Your task to perform on an android device: turn off location history Image 0: 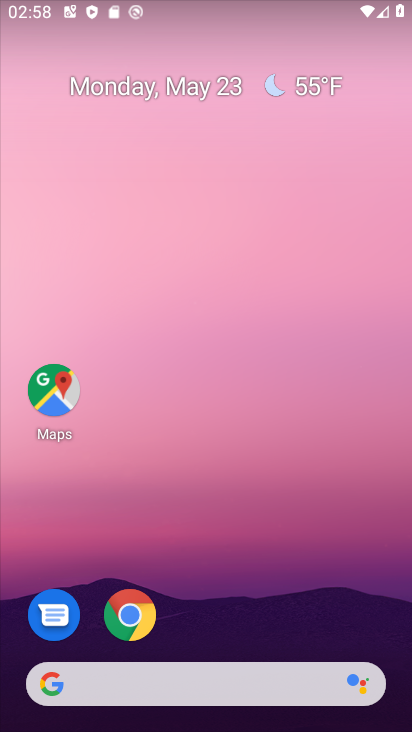
Step 0: drag from (349, 634) to (366, 271)
Your task to perform on an android device: turn off location history Image 1: 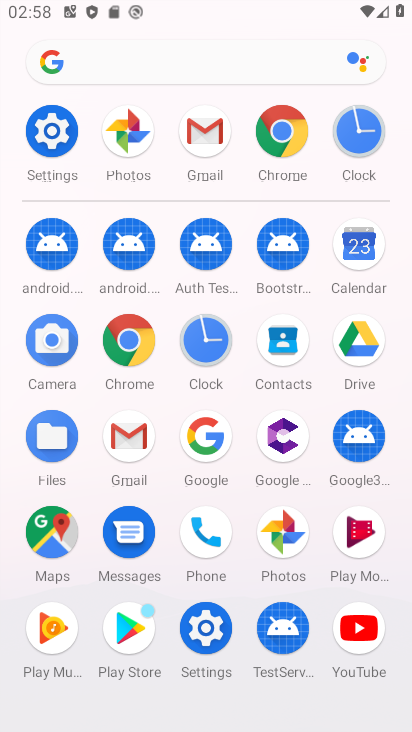
Step 1: click (191, 648)
Your task to perform on an android device: turn off location history Image 2: 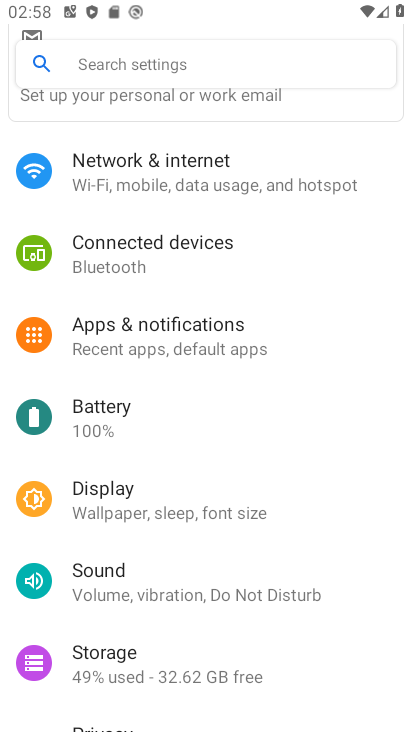
Step 2: drag from (323, 645) to (332, 488)
Your task to perform on an android device: turn off location history Image 3: 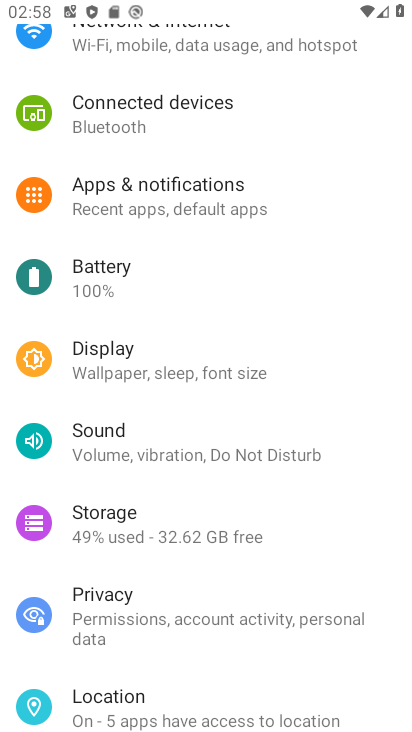
Step 3: drag from (322, 667) to (336, 531)
Your task to perform on an android device: turn off location history Image 4: 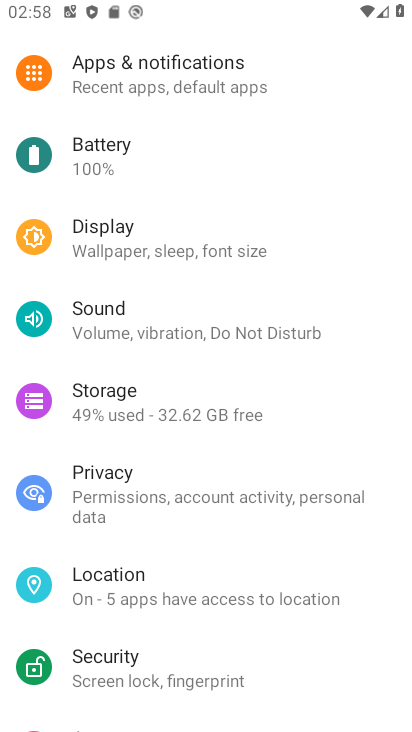
Step 4: drag from (355, 685) to (350, 521)
Your task to perform on an android device: turn off location history Image 5: 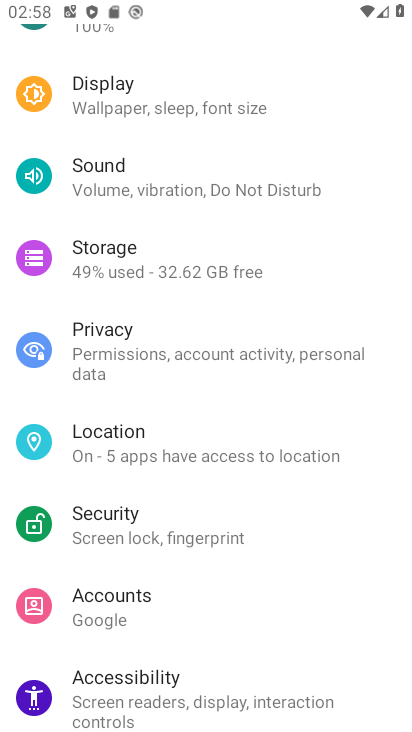
Step 5: drag from (358, 674) to (361, 496)
Your task to perform on an android device: turn off location history Image 6: 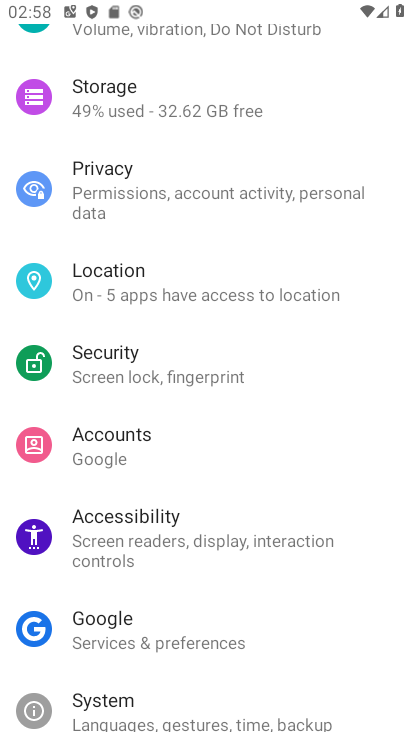
Step 6: drag from (375, 647) to (355, 497)
Your task to perform on an android device: turn off location history Image 7: 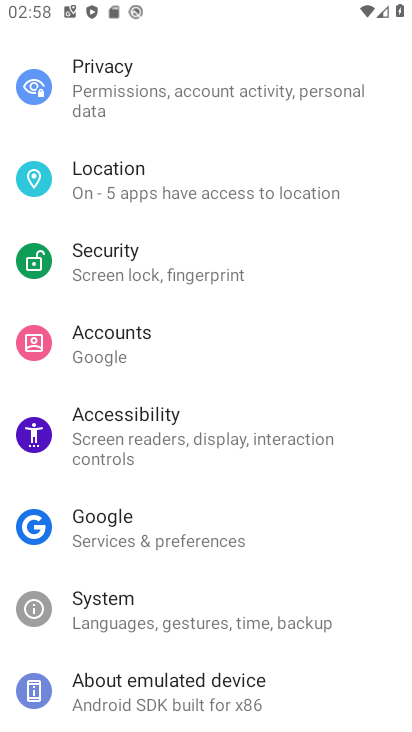
Step 7: drag from (334, 668) to (345, 527)
Your task to perform on an android device: turn off location history Image 8: 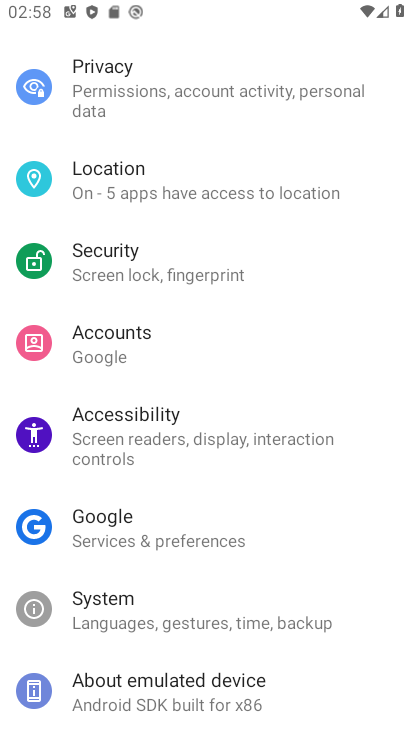
Step 8: drag from (355, 423) to (345, 529)
Your task to perform on an android device: turn off location history Image 9: 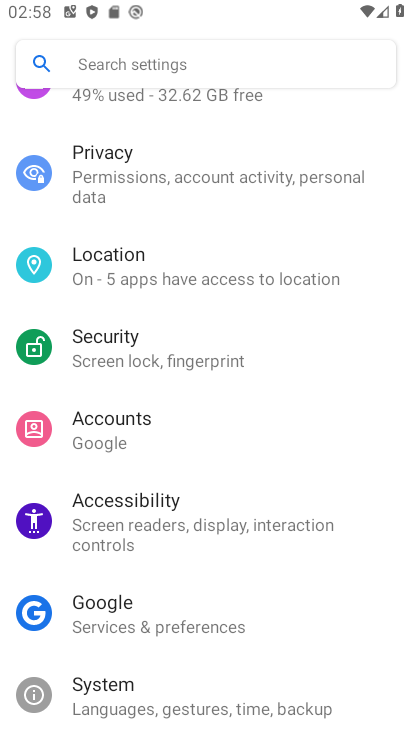
Step 9: drag from (350, 423) to (345, 527)
Your task to perform on an android device: turn off location history Image 10: 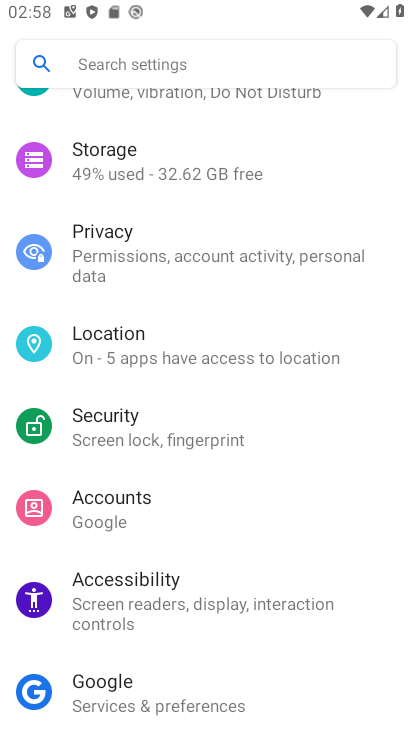
Step 10: drag from (331, 438) to (324, 504)
Your task to perform on an android device: turn off location history Image 11: 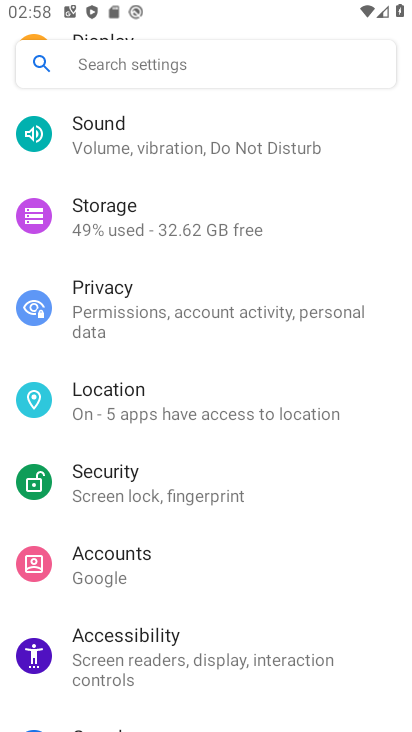
Step 11: drag from (338, 409) to (337, 498)
Your task to perform on an android device: turn off location history Image 12: 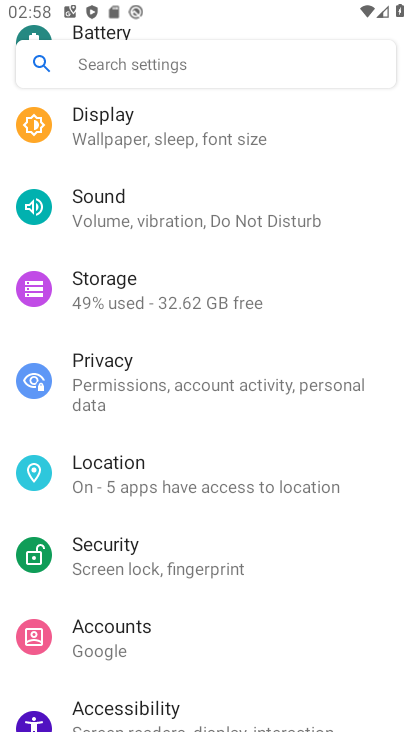
Step 12: drag from (359, 374) to (342, 510)
Your task to perform on an android device: turn off location history Image 13: 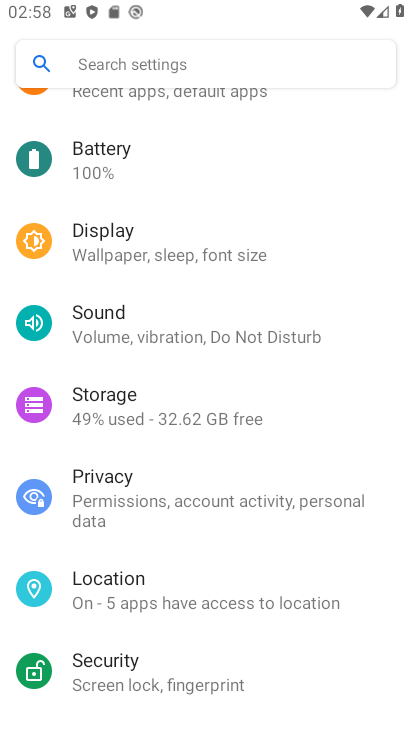
Step 13: click (294, 572)
Your task to perform on an android device: turn off location history Image 14: 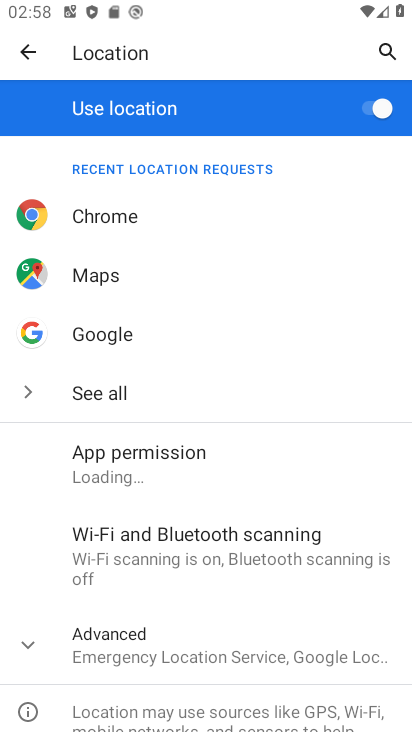
Step 14: drag from (289, 616) to (296, 498)
Your task to perform on an android device: turn off location history Image 15: 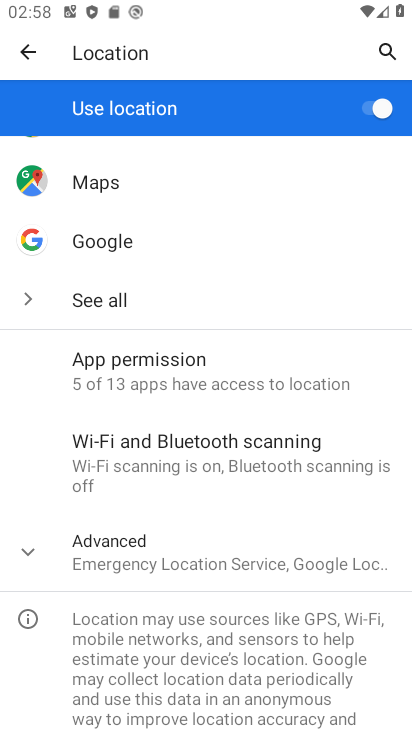
Step 15: click (294, 575)
Your task to perform on an android device: turn off location history Image 16: 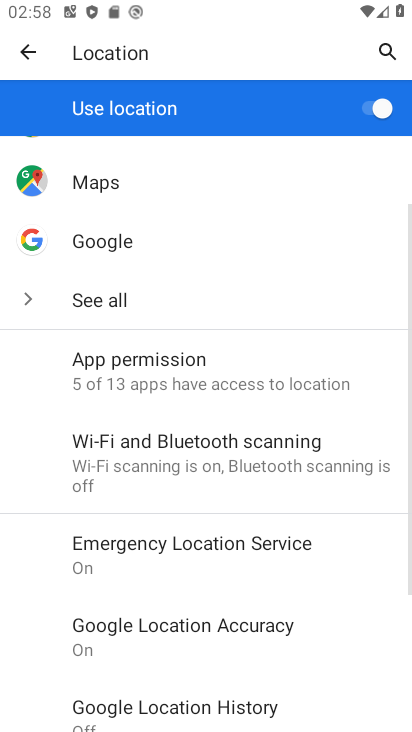
Step 16: drag from (290, 668) to (297, 555)
Your task to perform on an android device: turn off location history Image 17: 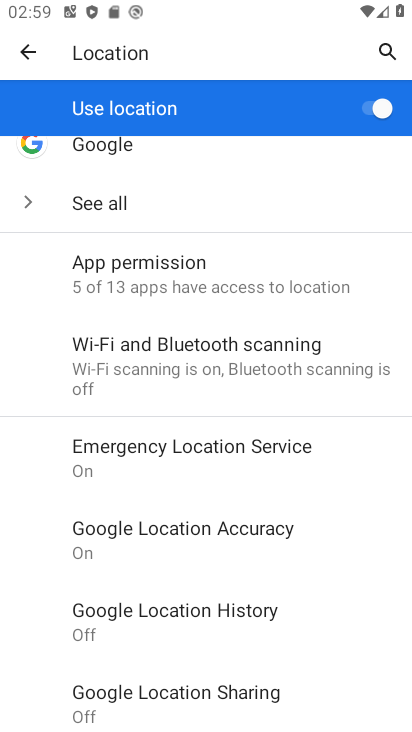
Step 17: click (275, 636)
Your task to perform on an android device: turn off location history Image 18: 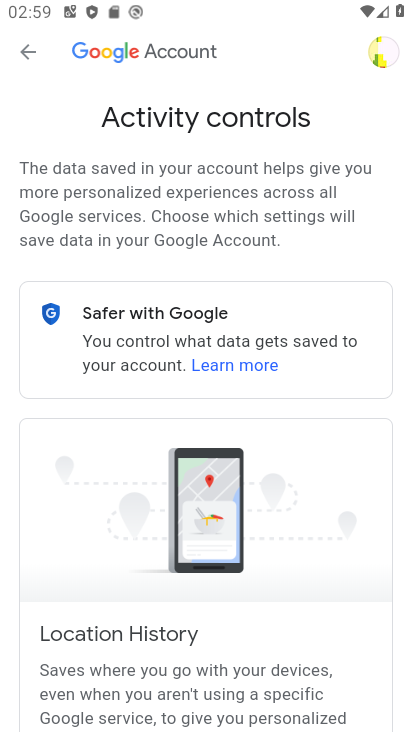
Step 18: drag from (275, 636) to (271, 522)
Your task to perform on an android device: turn off location history Image 19: 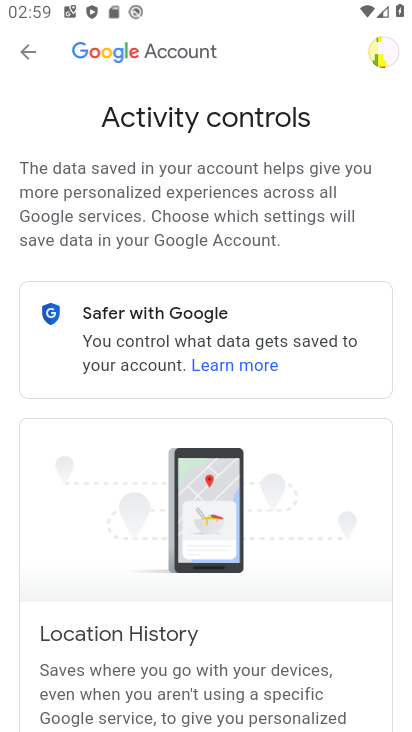
Step 19: drag from (260, 646) to (270, 506)
Your task to perform on an android device: turn off location history Image 20: 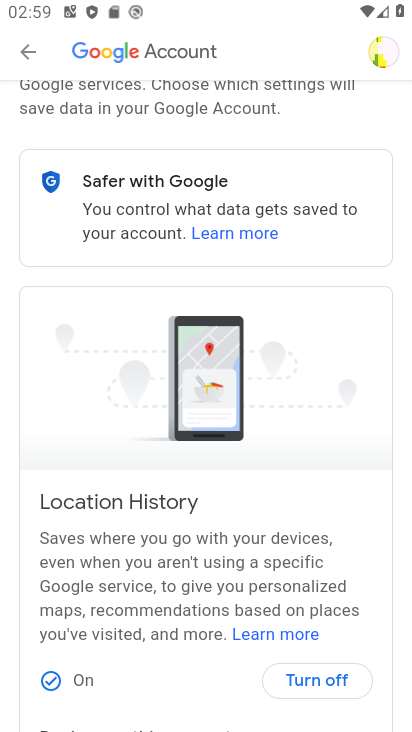
Step 20: click (323, 690)
Your task to perform on an android device: turn off location history Image 21: 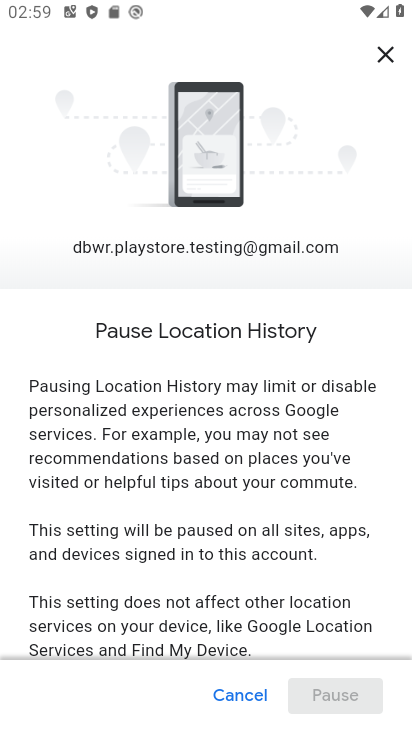
Step 21: drag from (349, 552) to (357, 448)
Your task to perform on an android device: turn off location history Image 22: 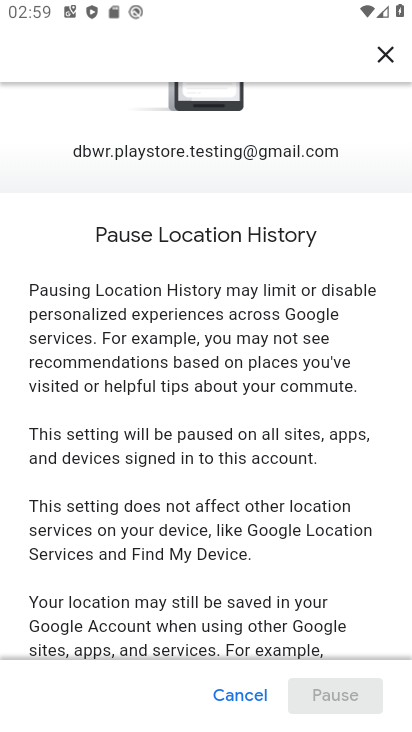
Step 22: drag from (354, 584) to (349, 475)
Your task to perform on an android device: turn off location history Image 23: 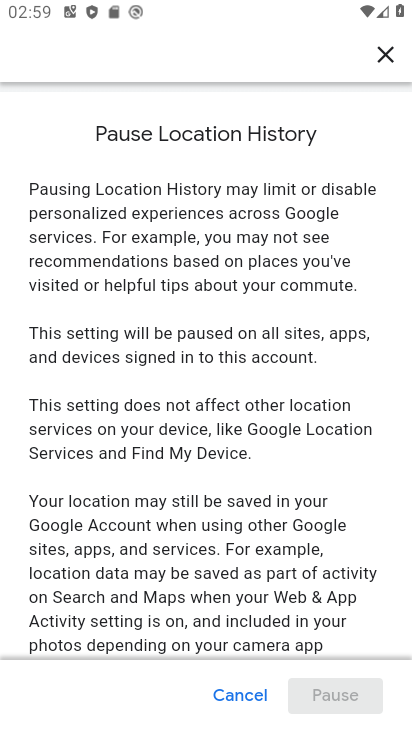
Step 23: drag from (336, 583) to (348, 466)
Your task to perform on an android device: turn off location history Image 24: 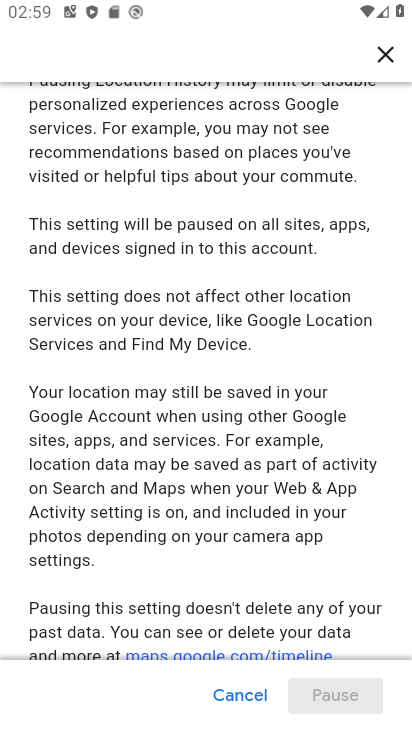
Step 24: drag from (323, 549) to (352, 431)
Your task to perform on an android device: turn off location history Image 25: 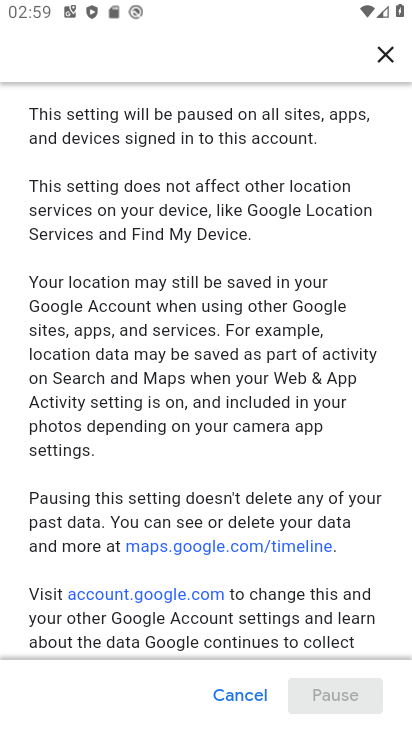
Step 25: drag from (356, 584) to (355, 456)
Your task to perform on an android device: turn off location history Image 26: 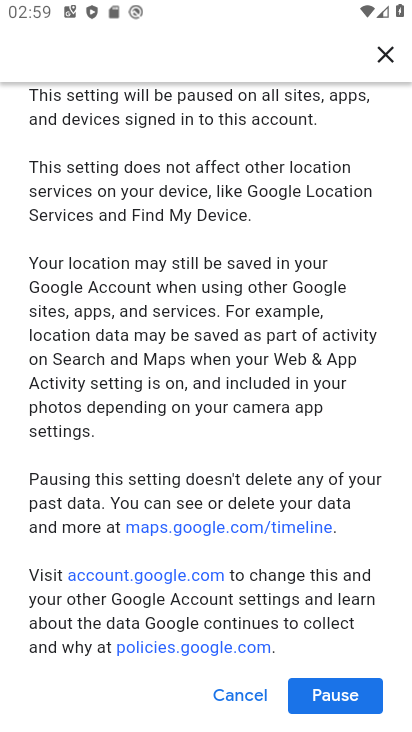
Step 26: click (353, 696)
Your task to perform on an android device: turn off location history Image 27: 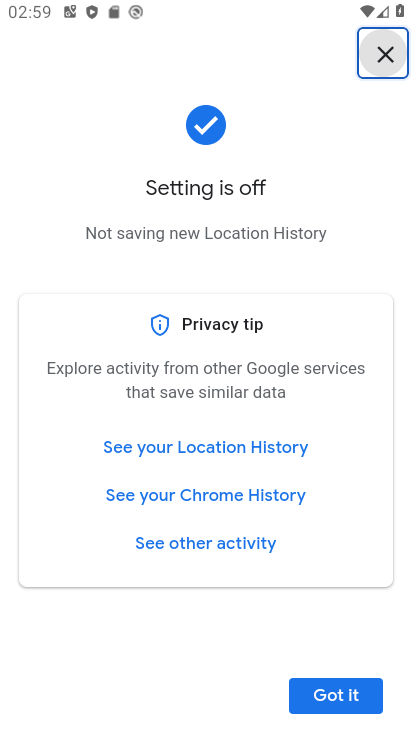
Step 27: task complete